Your task to perform on an android device: What are the best selling refrigerators at Home Depot? Image 0: 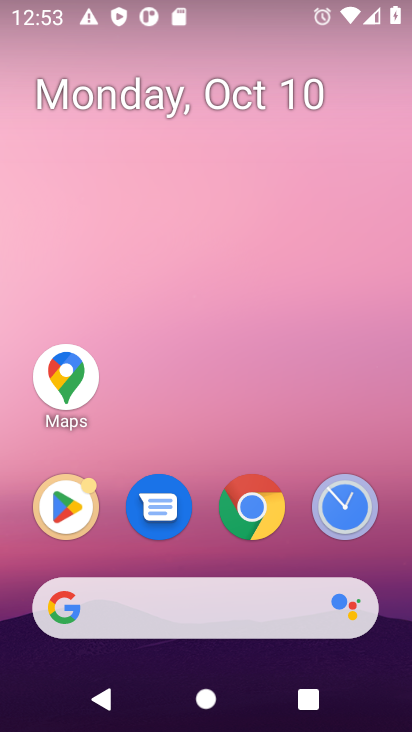
Step 0: press home button
Your task to perform on an android device: What are the best selling refrigerators at Home Depot? Image 1: 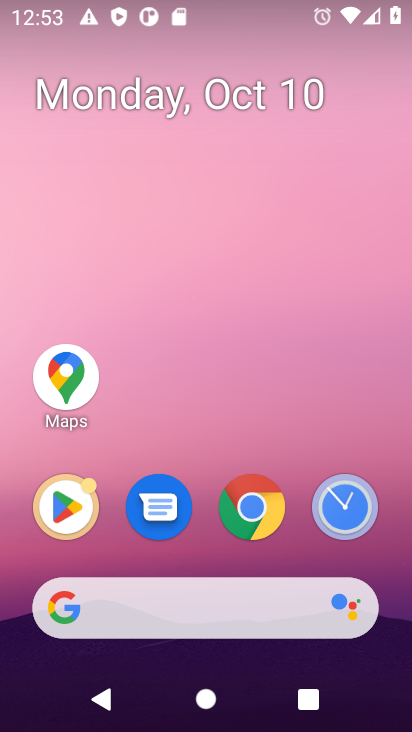
Step 1: click (253, 599)
Your task to perform on an android device: What are the best selling refrigerators at Home Depot? Image 2: 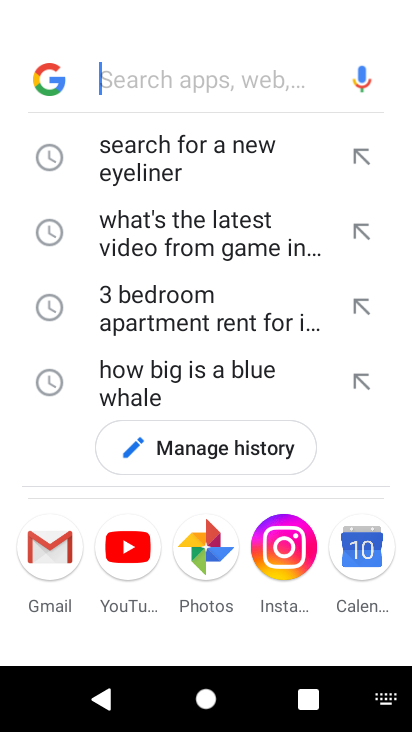
Step 2: type "What are the best selling refrigerators at Home Depot"
Your task to perform on an android device: What are the best selling refrigerators at Home Depot? Image 3: 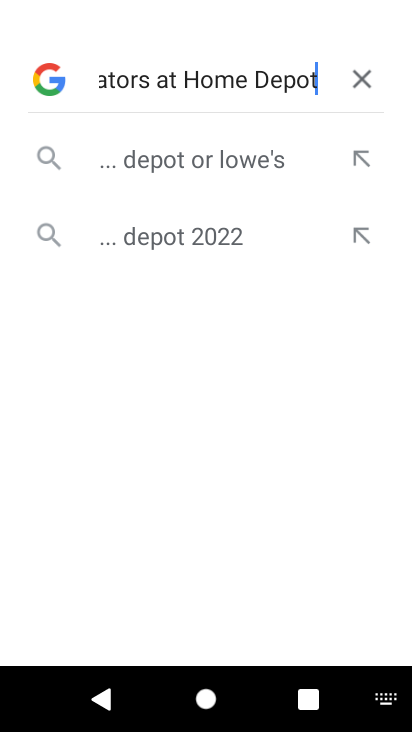
Step 3: press enter
Your task to perform on an android device: What are the best selling refrigerators at Home Depot? Image 4: 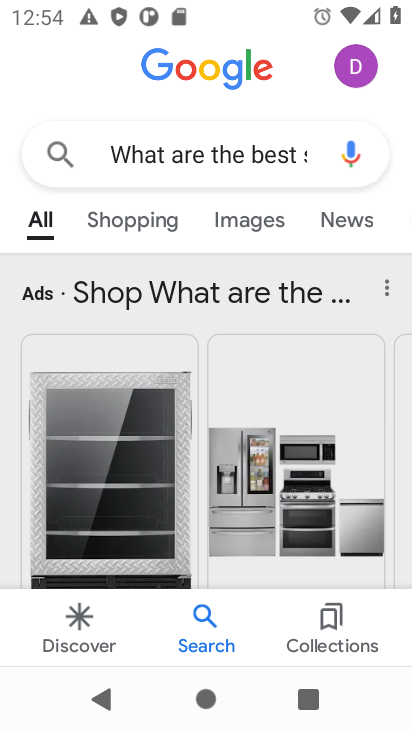
Step 4: drag from (267, 507) to (272, 365)
Your task to perform on an android device: What are the best selling refrigerators at Home Depot? Image 5: 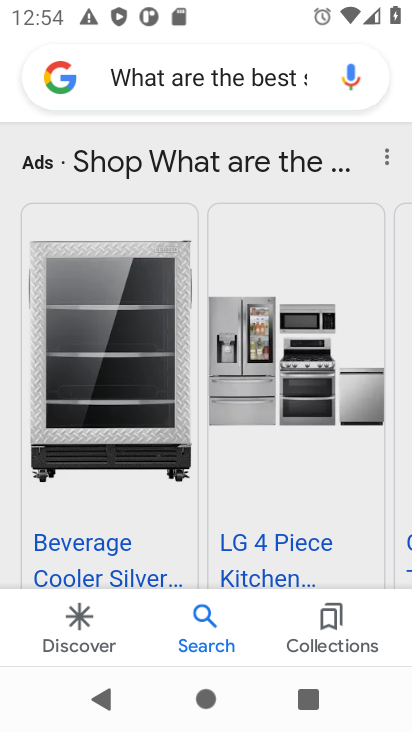
Step 5: drag from (254, 498) to (255, 394)
Your task to perform on an android device: What are the best selling refrigerators at Home Depot? Image 6: 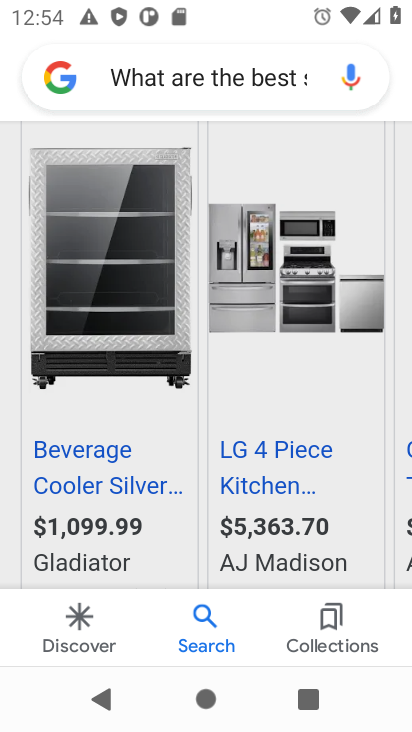
Step 6: click (261, 515)
Your task to perform on an android device: What are the best selling refrigerators at Home Depot? Image 7: 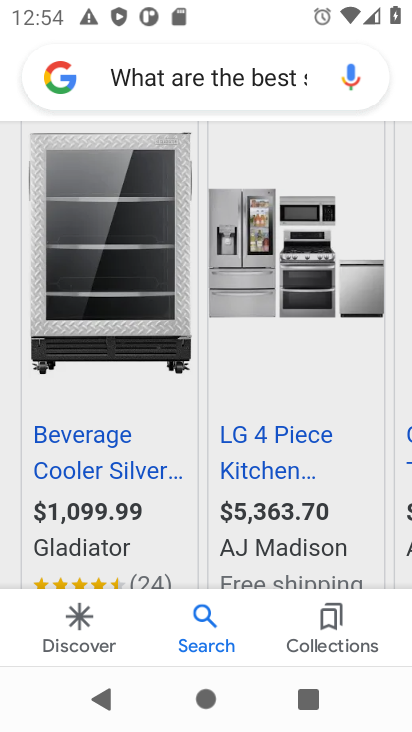
Step 7: task complete